Your task to perform on an android device: allow cookies in the chrome app Image 0: 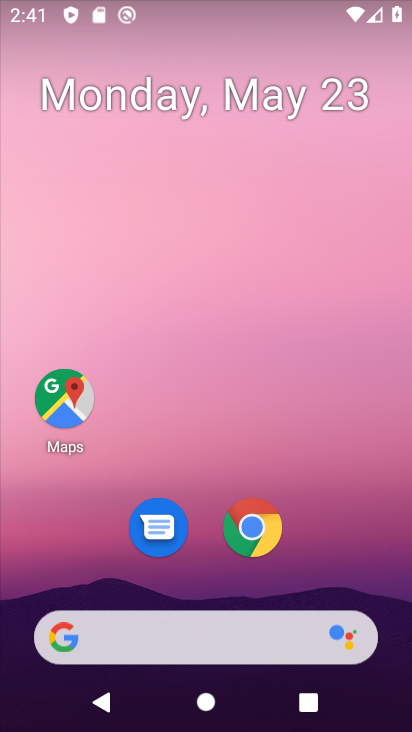
Step 0: drag from (290, 673) to (325, 187)
Your task to perform on an android device: allow cookies in the chrome app Image 1: 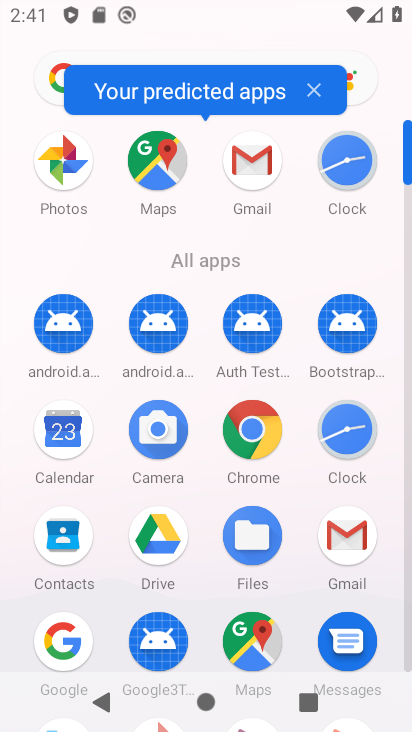
Step 1: click (249, 429)
Your task to perform on an android device: allow cookies in the chrome app Image 2: 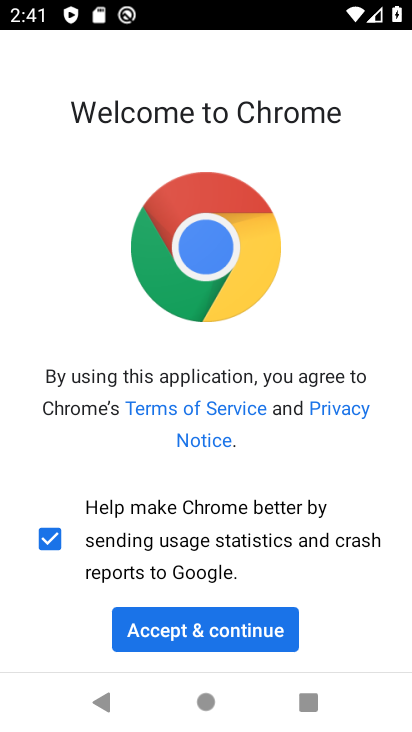
Step 2: click (217, 627)
Your task to perform on an android device: allow cookies in the chrome app Image 3: 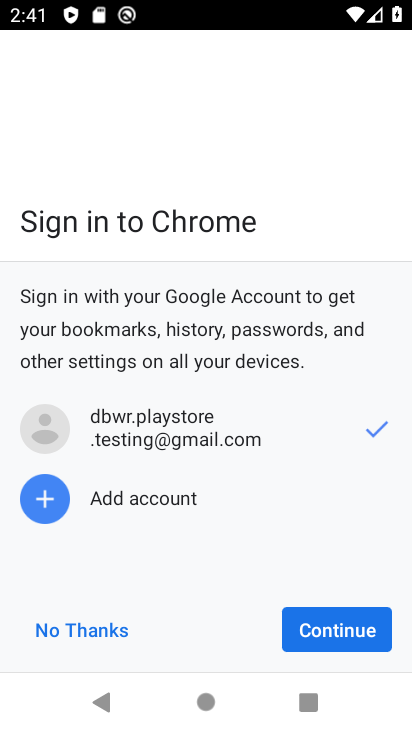
Step 3: click (321, 627)
Your task to perform on an android device: allow cookies in the chrome app Image 4: 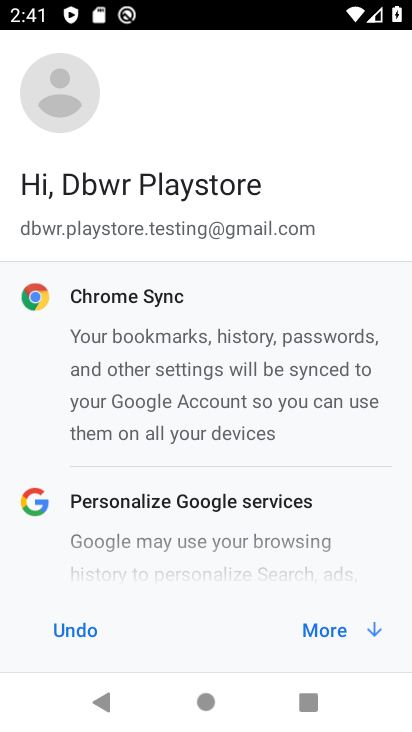
Step 4: click (390, 622)
Your task to perform on an android device: allow cookies in the chrome app Image 5: 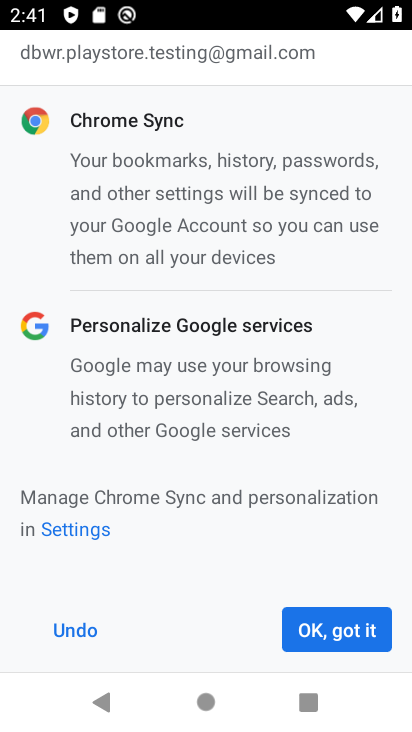
Step 5: click (346, 628)
Your task to perform on an android device: allow cookies in the chrome app Image 6: 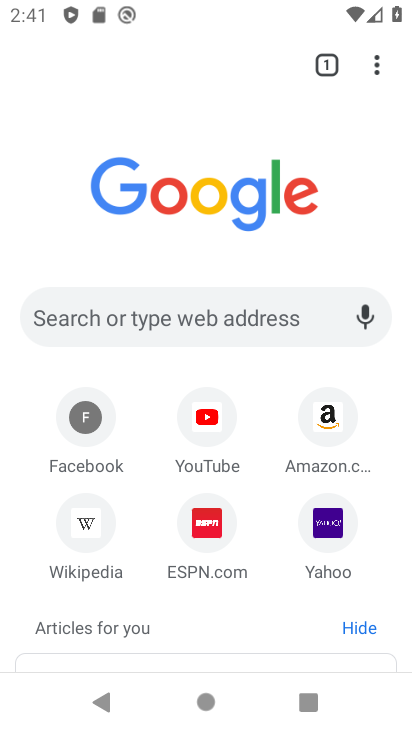
Step 6: click (367, 70)
Your task to perform on an android device: allow cookies in the chrome app Image 7: 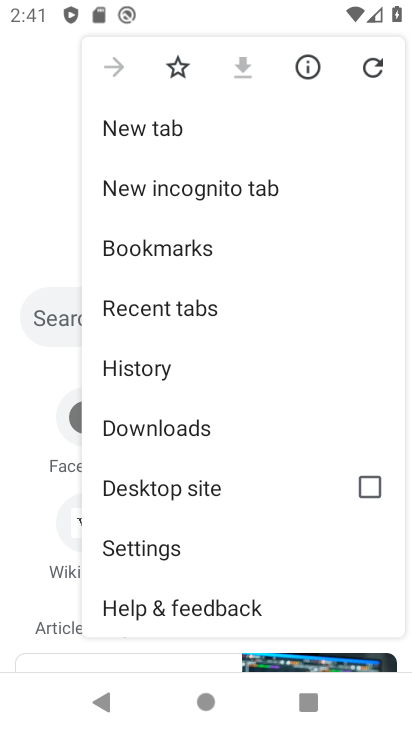
Step 7: click (197, 558)
Your task to perform on an android device: allow cookies in the chrome app Image 8: 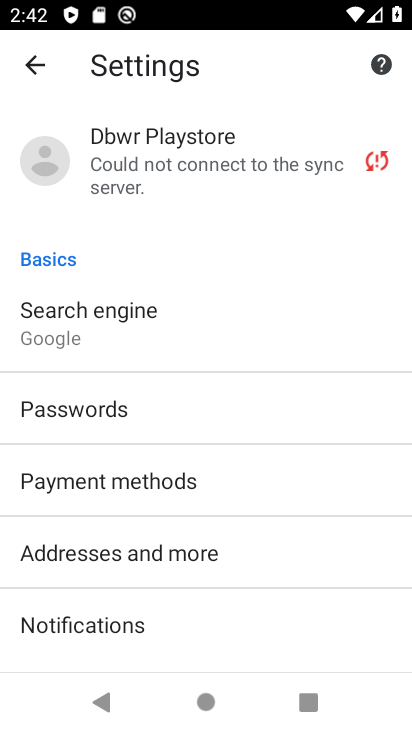
Step 8: drag from (200, 600) to (235, 260)
Your task to perform on an android device: allow cookies in the chrome app Image 9: 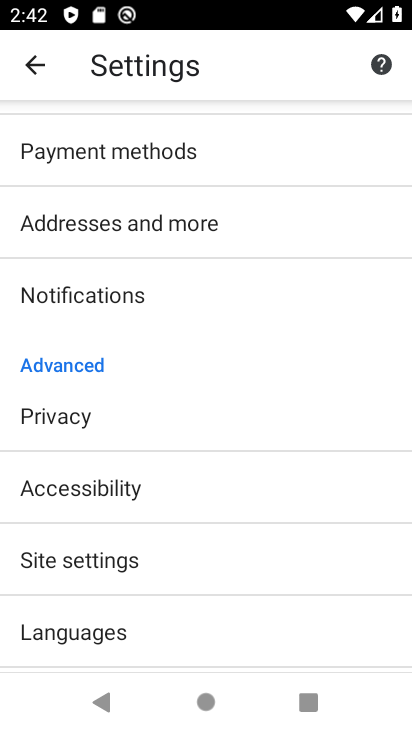
Step 9: click (123, 561)
Your task to perform on an android device: allow cookies in the chrome app Image 10: 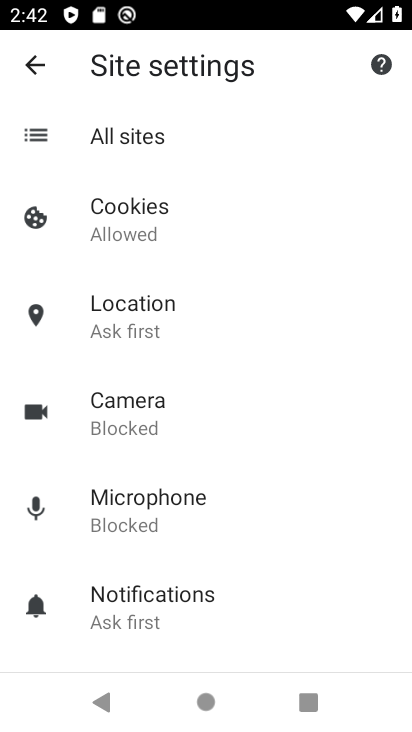
Step 10: click (178, 230)
Your task to perform on an android device: allow cookies in the chrome app Image 11: 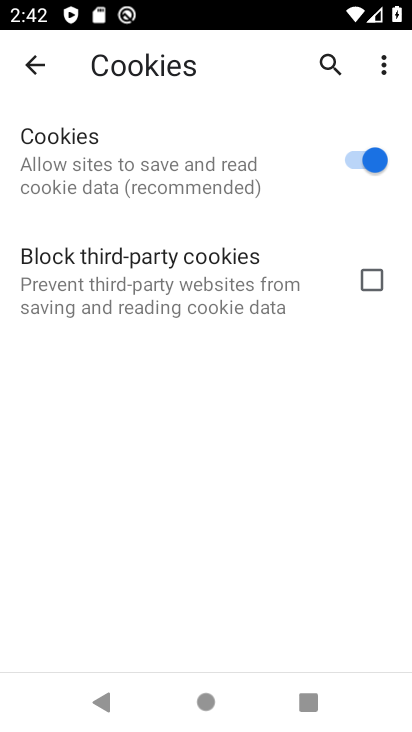
Step 11: task complete